Your task to perform on an android device: turn off airplane mode Image 0: 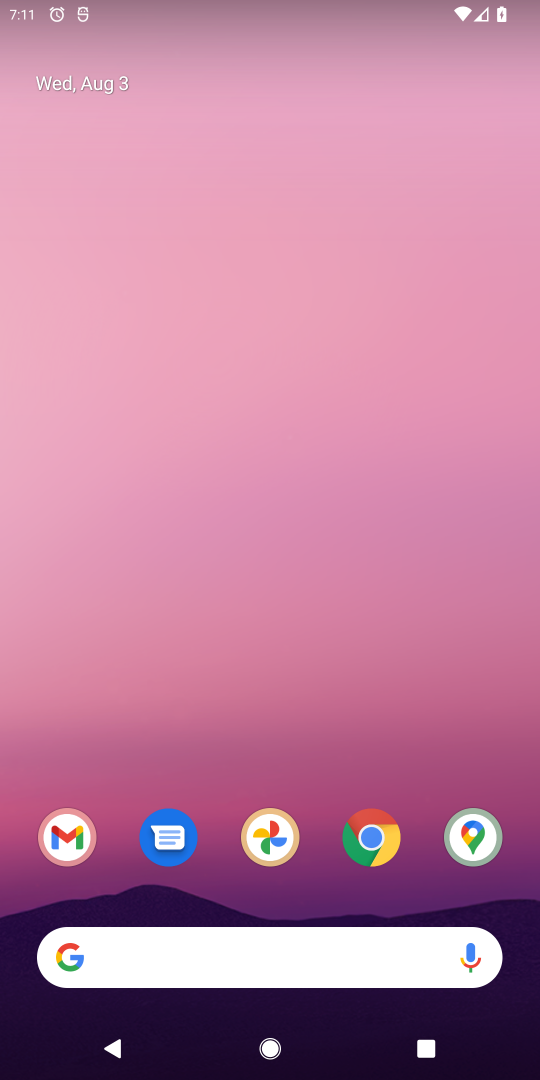
Step 0: press home button
Your task to perform on an android device: turn off airplane mode Image 1: 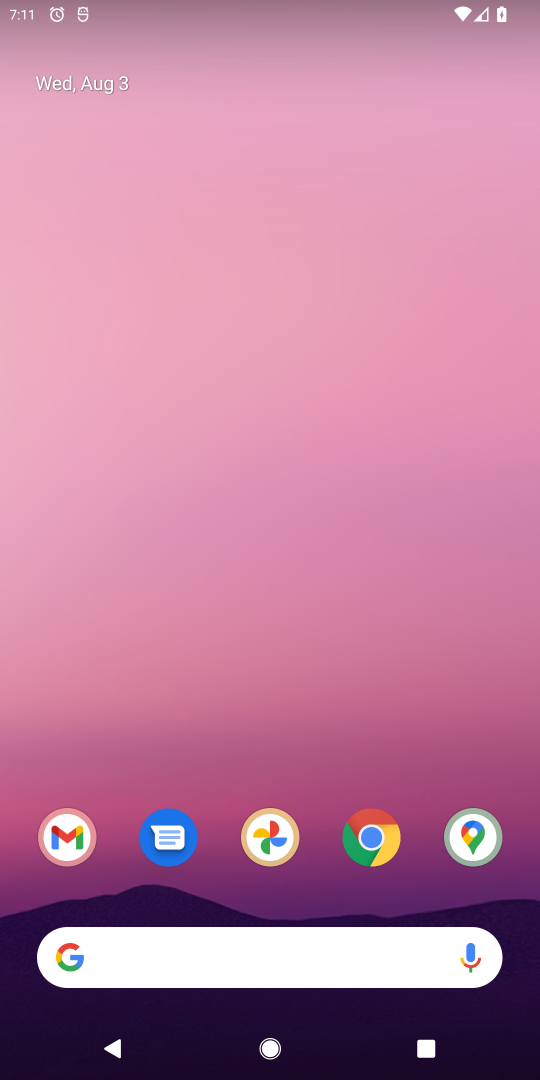
Step 1: drag from (348, 753) to (367, 37)
Your task to perform on an android device: turn off airplane mode Image 2: 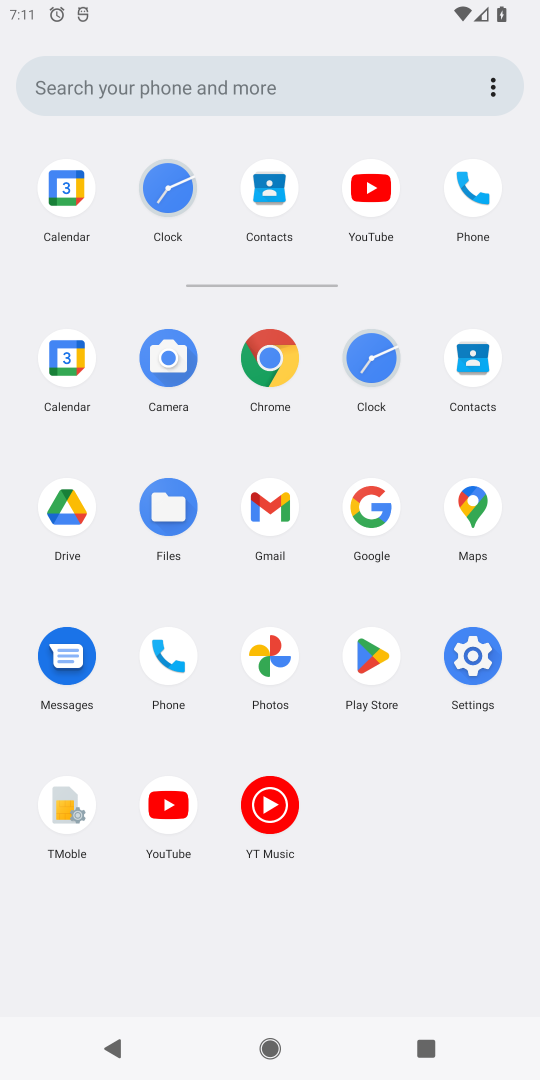
Step 2: click (486, 652)
Your task to perform on an android device: turn off airplane mode Image 3: 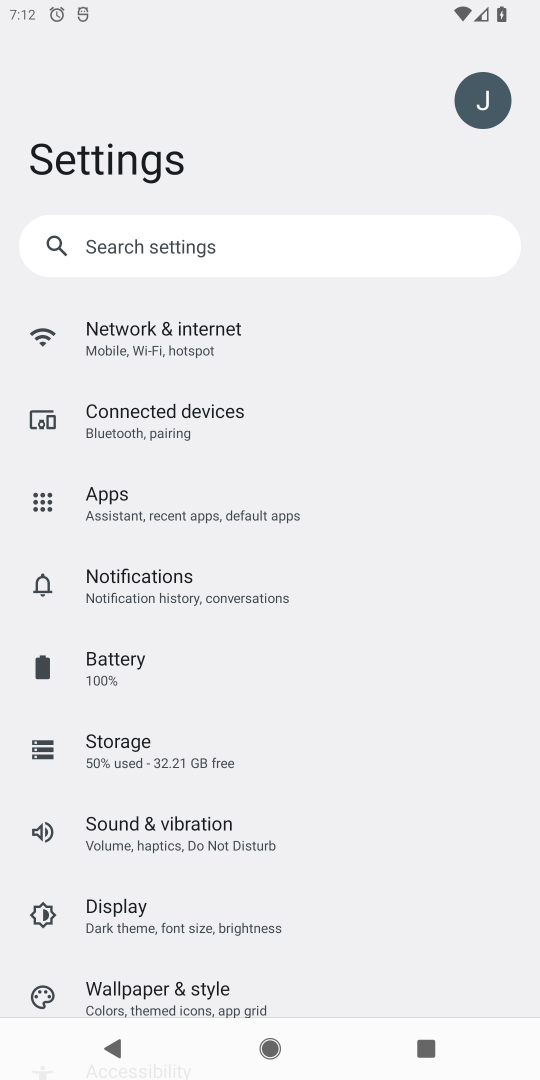
Step 3: click (324, 349)
Your task to perform on an android device: turn off airplane mode Image 4: 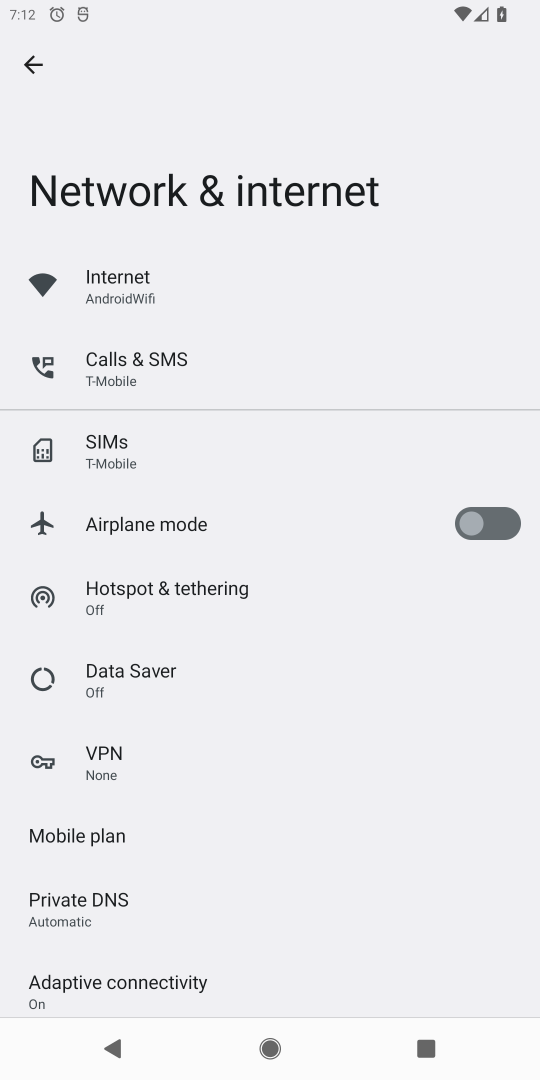
Step 4: task complete